Your task to perform on an android device: visit the assistant section in the google photos Image 0: 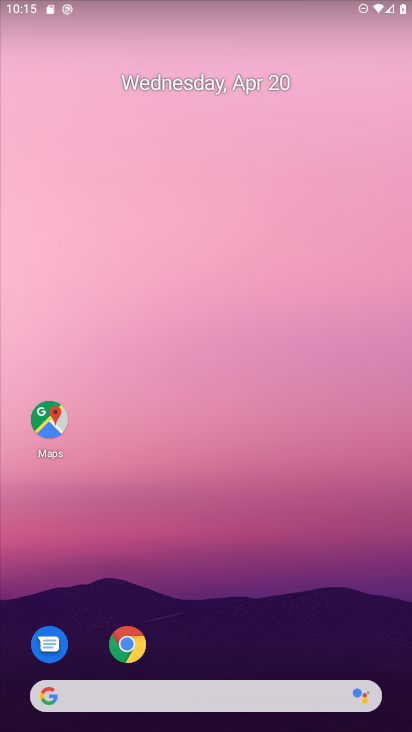
Step 0: drag from (338, 597) to (252, 57)
Your task to perform on an android device: visit the assistant section in the google photos Image 1: 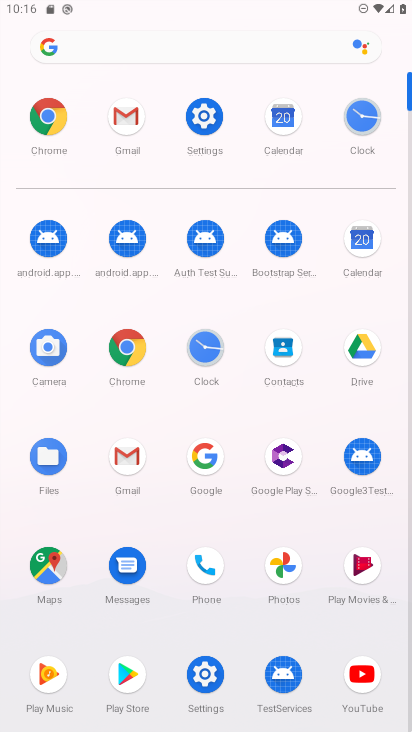
Step 1: click (272, 560)
Your task to perform on an android device: visit the assistant section in the google photos Image 2: 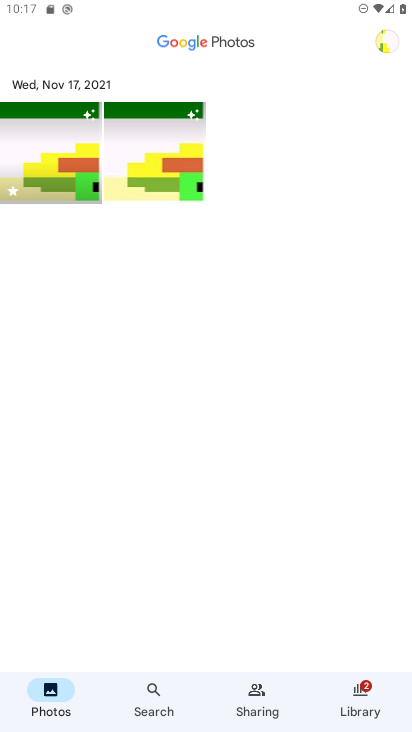
Step 2: task complete